Your task to perform on an android device: Is it going to rain today? Image 0: 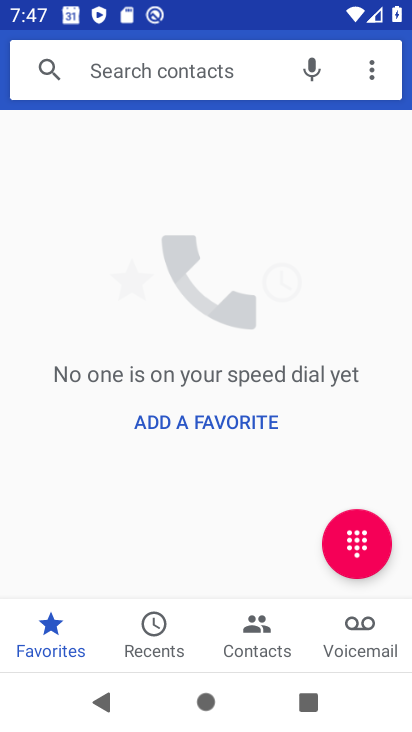
Step 0: press home button
Your task to perform on an android device: Is it going to rain today? Image 1: 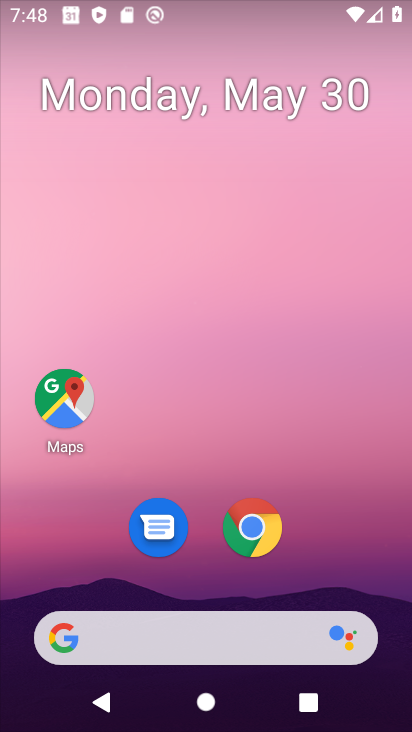
Step 1: click (228, 628)
Your task to perform on an android device: Is it going to rain today? Image 2: 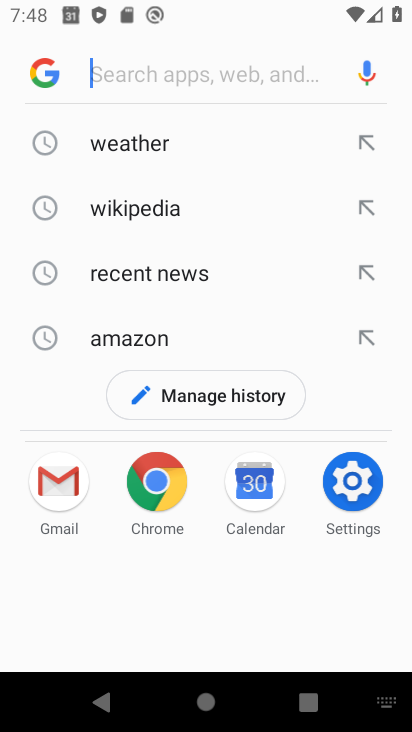
Step 2: type "is it going to r"
Your task to perform on an android device: Is it going to rain today? Image 3: 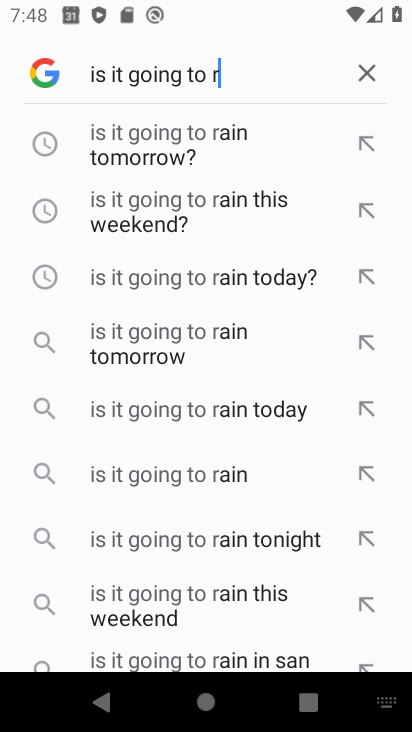
Step 3: type ""
Your task to perform on an android device: Is it going to rain today? Image 4: 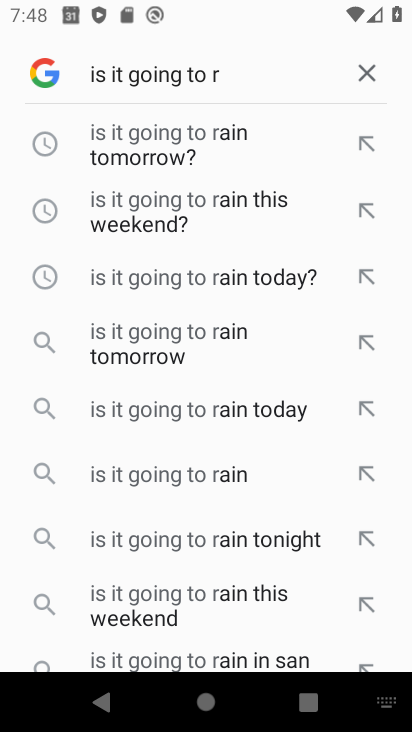
Step 4: type ""
Your task to perform on an android device: Is it going to rain today? Image 5: 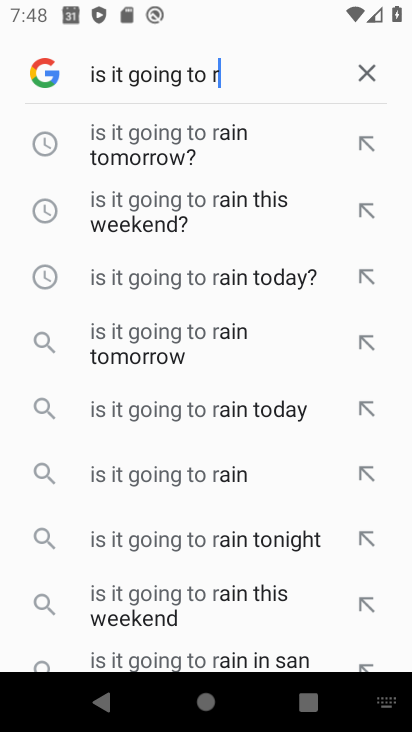
Step 5: type "ain today"
Your task to perform on an android device: Is it going to rain today? Image 6: 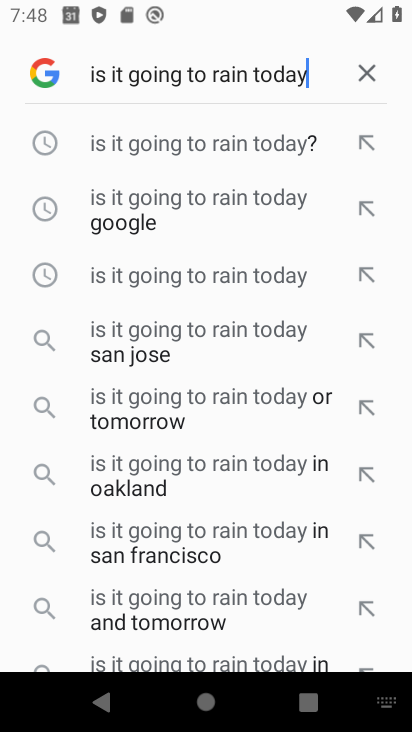
Step 6: click (107, 142)
Your task to perform on an android device: Is it going to rain today? Image 7: 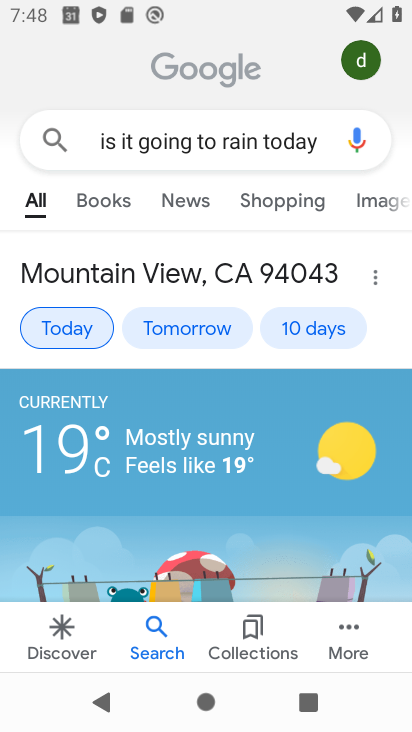
Step 7: task complete